Your task to perform on an android device: Go to Android settings Image 0: 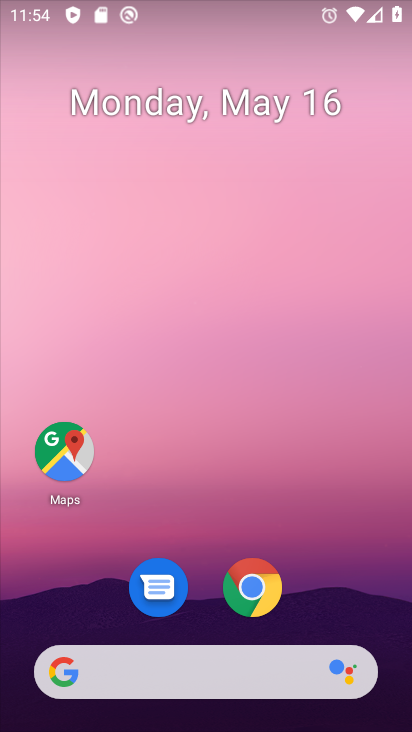
Step 0: drag from (375, 643) to (301, 39)
Your task to perform on an android device: Go to Android settings Image 1: 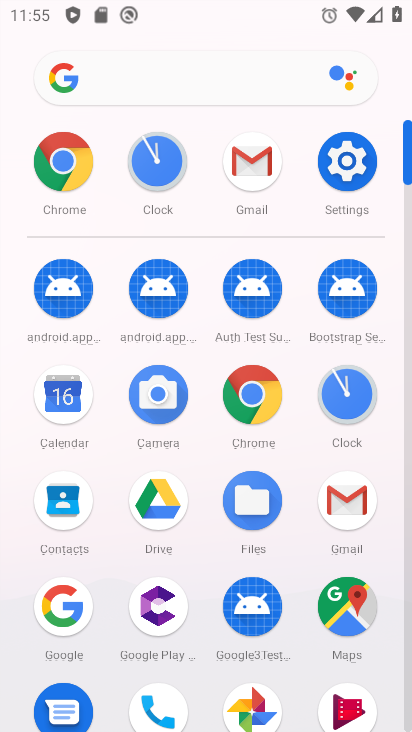
Step 1: click (345, 149)
Your task to perform on an android device: Go to Android settings Image 2: 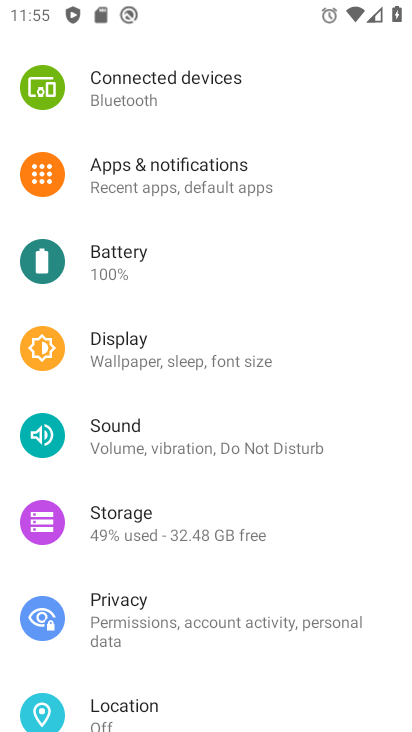
Step 2: drag from (86, 661) to (260, 43)
Your task to perform on an android device: Go to Android settings Image 3: 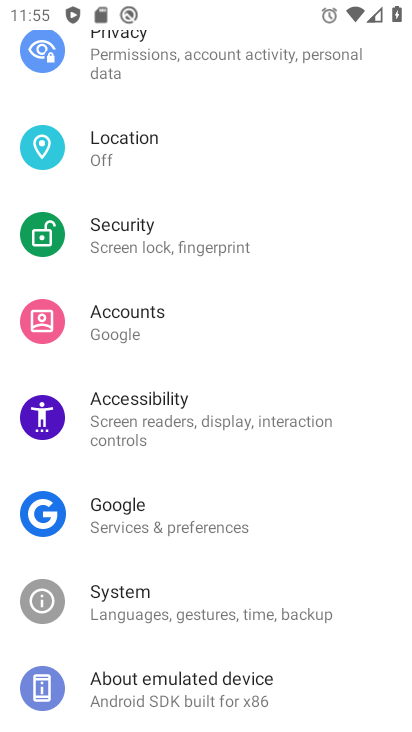
Step 3: click (188, 680)
Your task to perform on an android device: Go to Android settings Image 4: 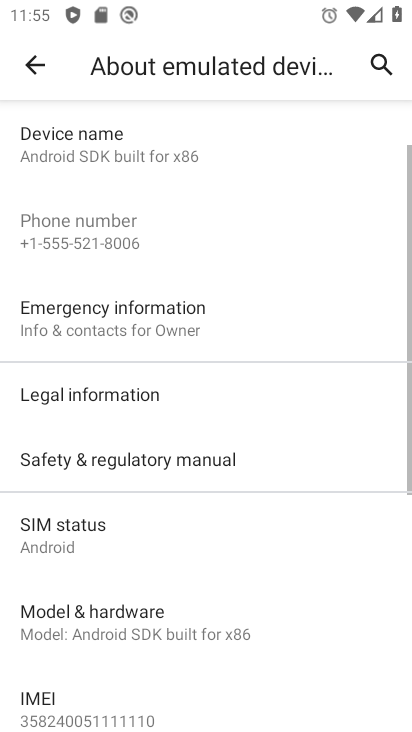
Step 4: drag from (122, 646) to (208, 251)
Your task to perform on an android device: Go to Android settings Image 5: 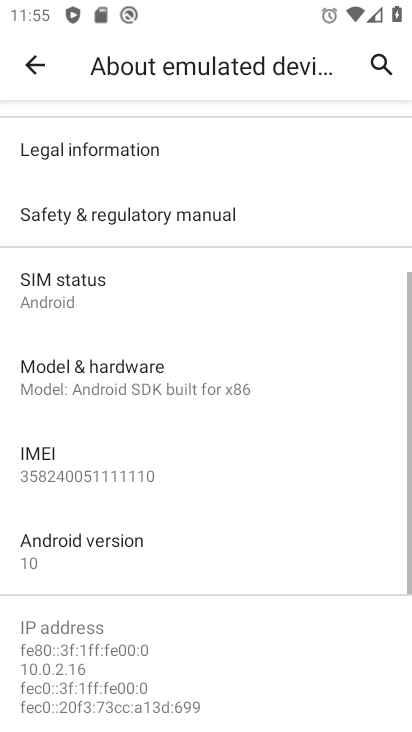
Step 5: click (125, 552)
Your task to perform on an android device: Go to Android settings Image 6: 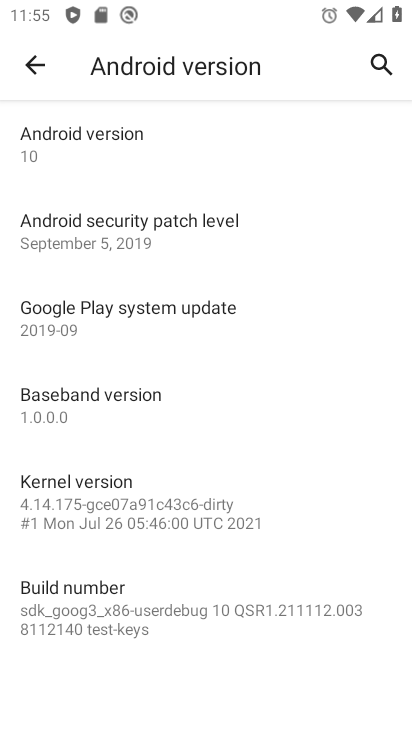
Step 6: task complete